Your task to perform on an android device: toggle notification dots Image 0: 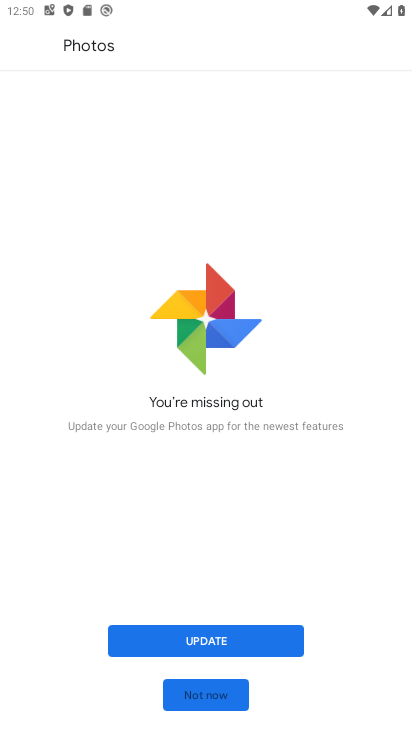
Step 0: press home button
Your task to perform on an android device: toggle notification dots Image 1: 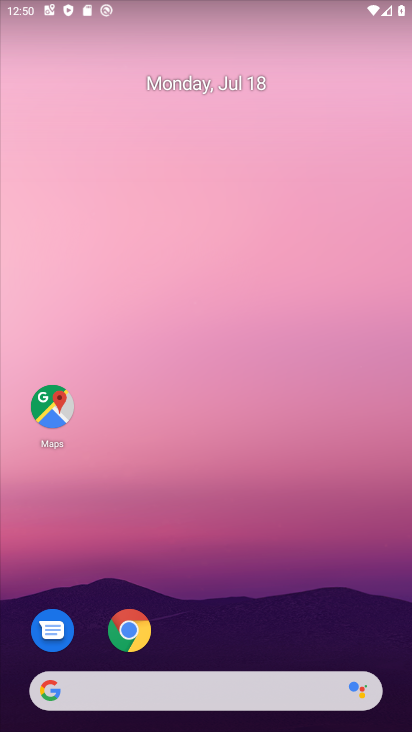
Step 1: drag from (376, 608) to (312, 27)
Your task to perform on an android device: toggle notification dots Image 2: 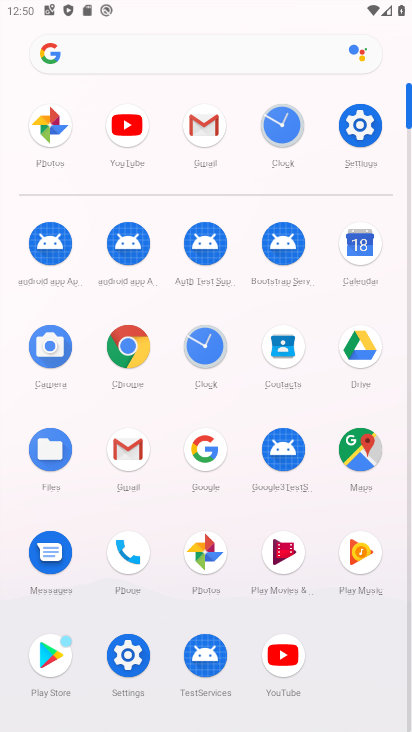
Step 2: click (355, 128)
Your task to perform on an android device: toggle notification dots Image 3: 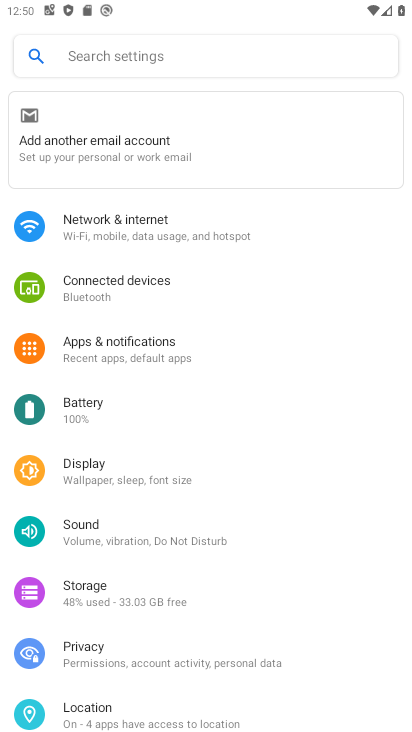
Step 3: click (232, 341)
Your task to perform on an android device: toggle notification dots Image 4: 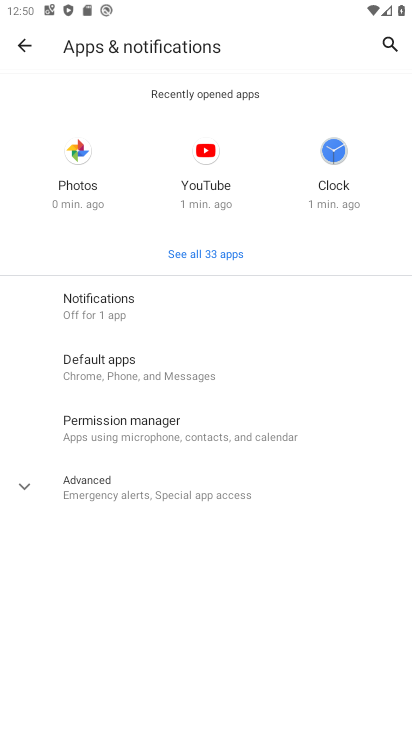
Step 4: click (272, 298)
Your task to perform on an android device: toggle notification dots Image 5: 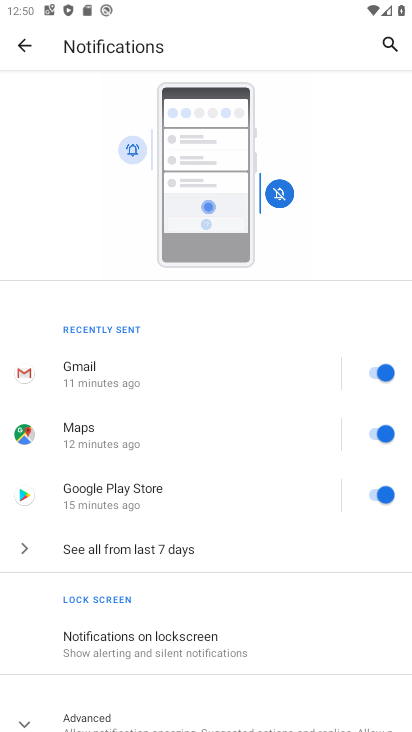
Step 5: drag from (319, 593) to (253, 181)
Your task to perform on an android device: toggle notification dots Image 6: 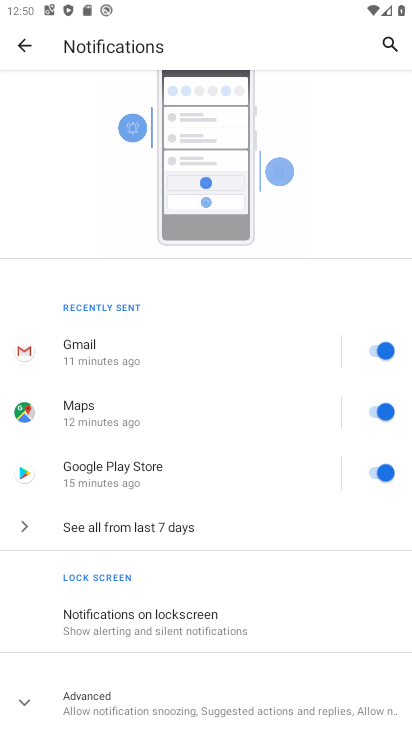
Step 6: drag from (220, 635) to (208, 307)
Your task to perform on an android device: toggle notification dots Image 7: 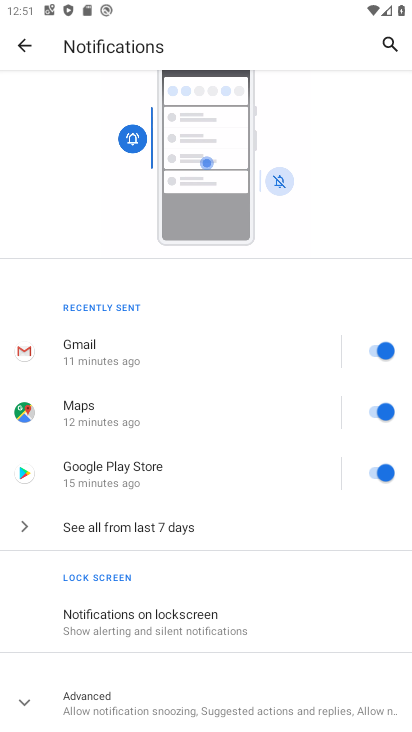
Step 7: click (255, 686)
Your task to perform on an android device: toggle notification dots Image 8: 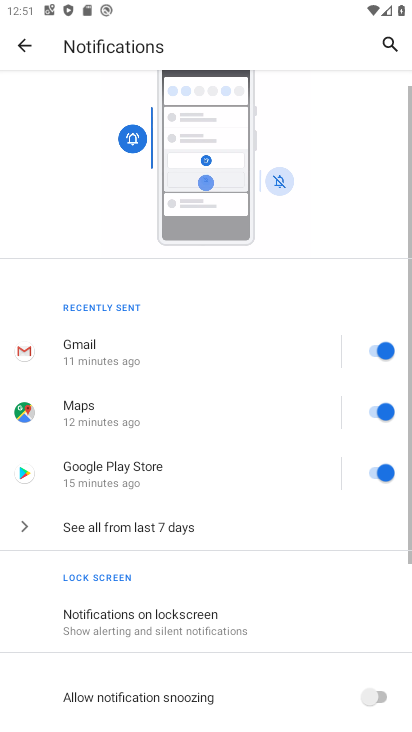
Step 8: drag from (261, 660) to (236, 273)
Your task to perform on an android device: toggle notification dots Image 9: 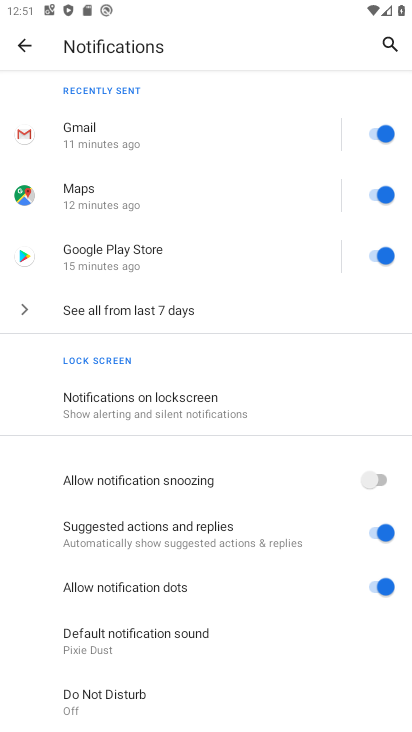
Step 9: click (385, 591)
Your task to perform on an android device: toggle notification dots Image 10: 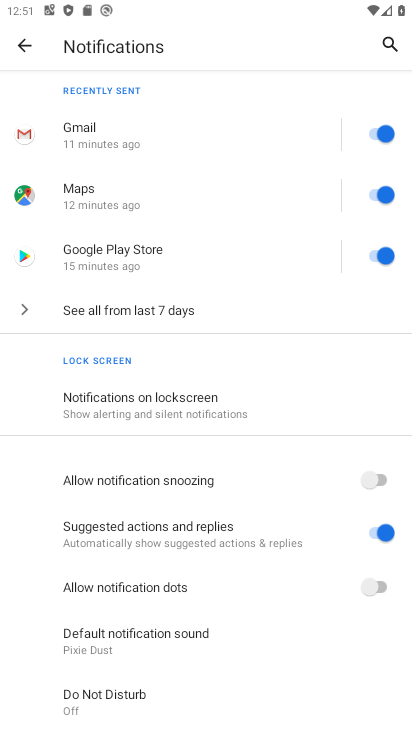
Step 10: task complete